Your task to perform on an android device: add a contact in the contacts app Image 0: 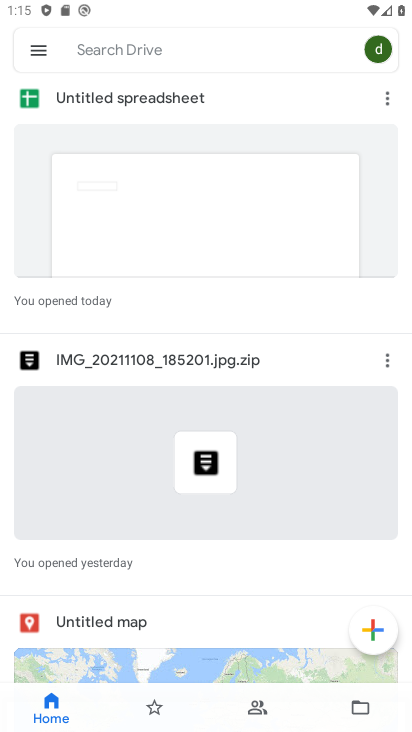
Step 0: press back button
Your task to perform on an android device: add a contact in the contacts app Image 1: 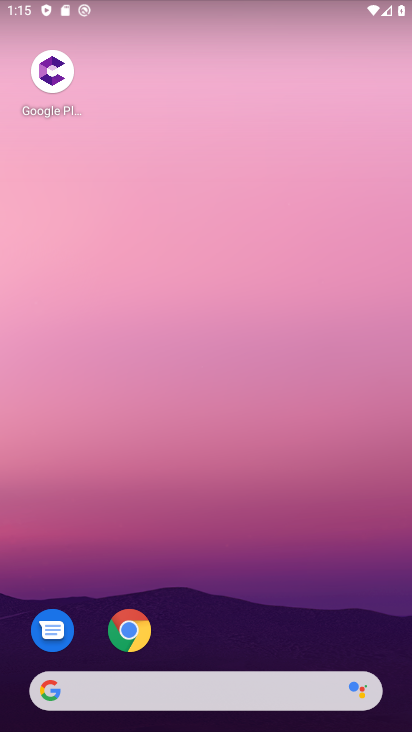
Step 1: drag from (295, 560) to (228, 0)
Your task to perform on an android device: add a contact in the contacts app Image 2: 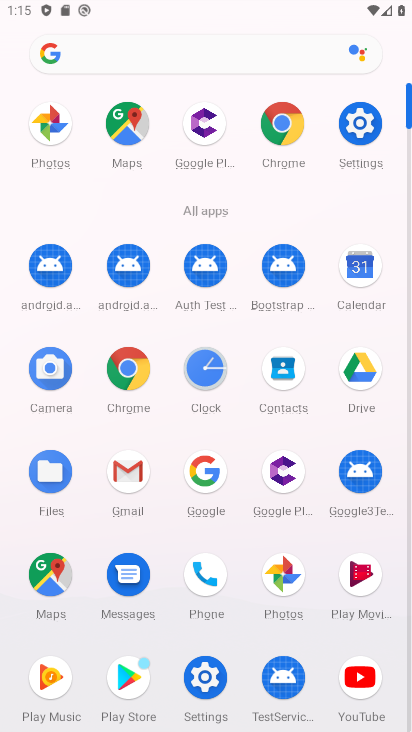
Step 2: drag from (2, 524) to (26, 164)
Your task to perform on an android device: add a contact in the contacts app Image 3: 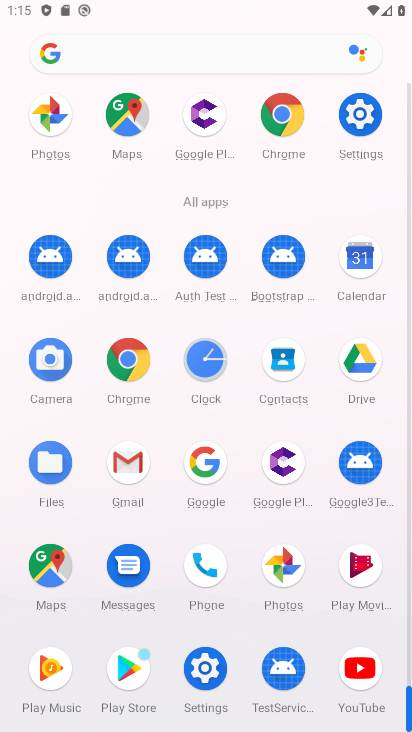
Step 3: click (277, 355)
Your task to perform on an android device: add a contact in the contacts app Image 4: 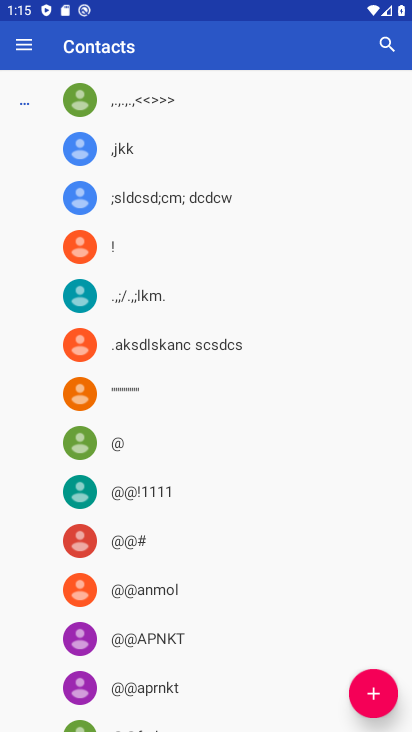
Step 4: click (371, 683)
Your task to perform on an android device: add a contact in the contacts app Image 5: 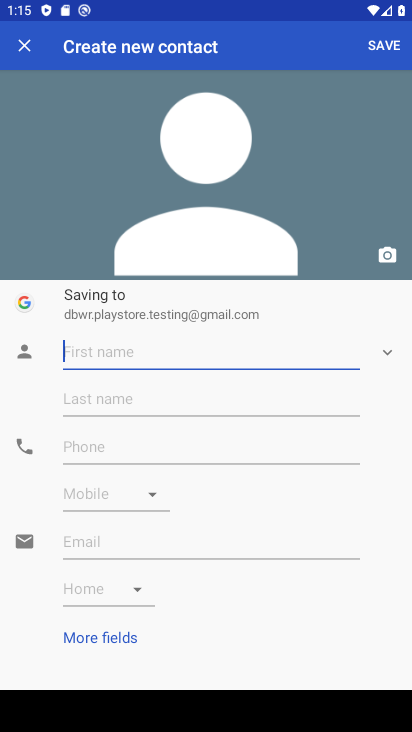
Step 5: type "Drtyui"
Your task to perform on an android device: add a contact in the contacts app Image 6: 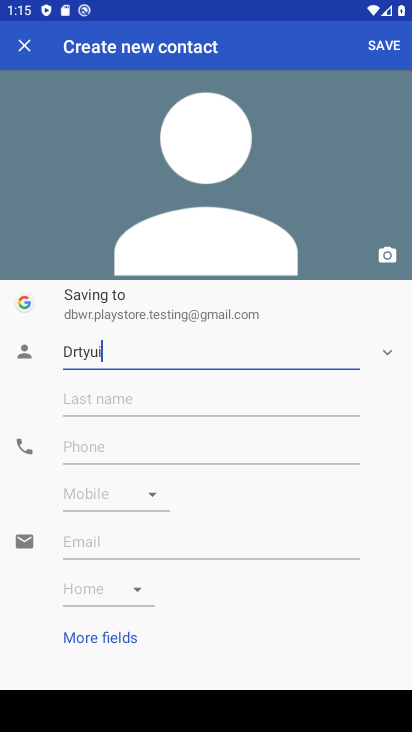
Step 6: type ""
Your task to perform on an android device: add a contact in the contacts app Image 7: 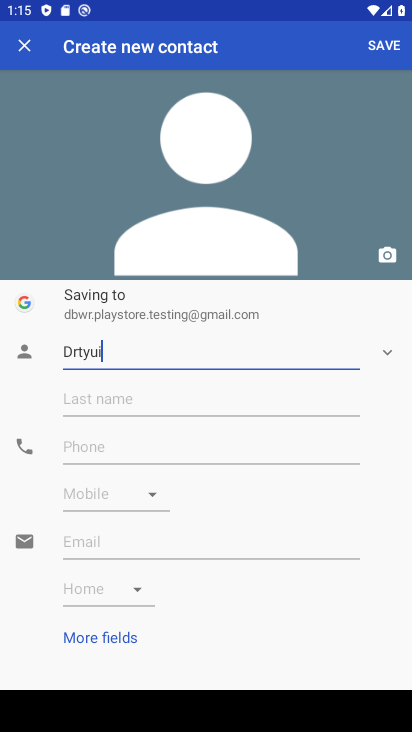
Step 7: click (105, 447)
Your task to perform on an android device: add a contact in the contacts app Image 8: 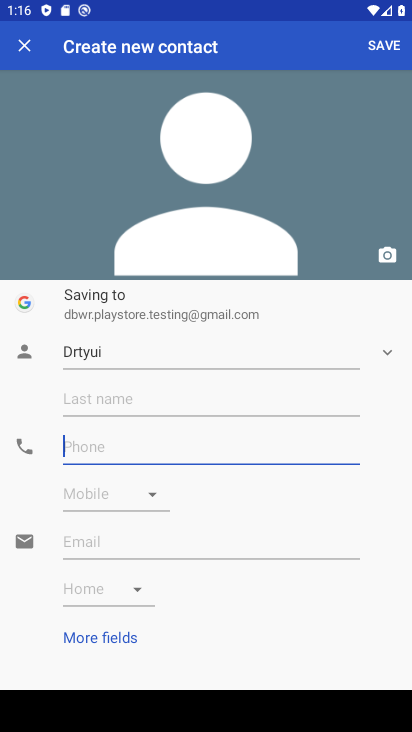
Step 8: type "45678987654"
Your task to perform on an android device: add a contact in the contacts app Image 9: 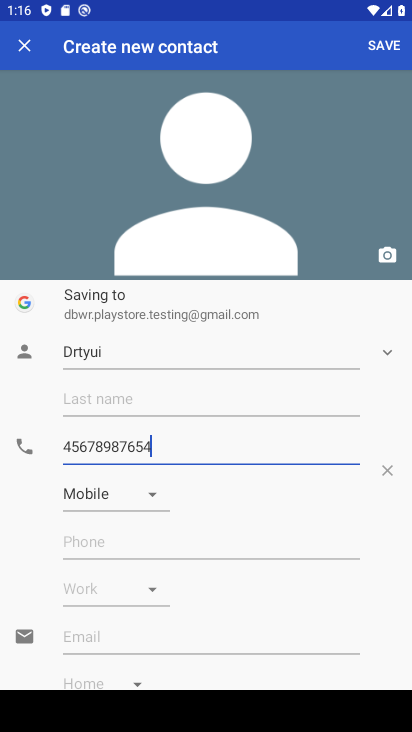
Step 9: type ""
Your task to perform on an android device: add a contact in the contacts app Image 10: 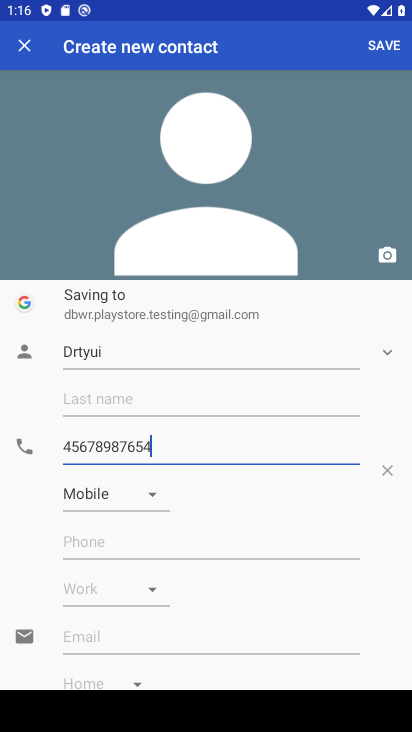
Step 10: click (381, 36)
Your task to perform on an android device: add a contact in the contacts app Image 11: 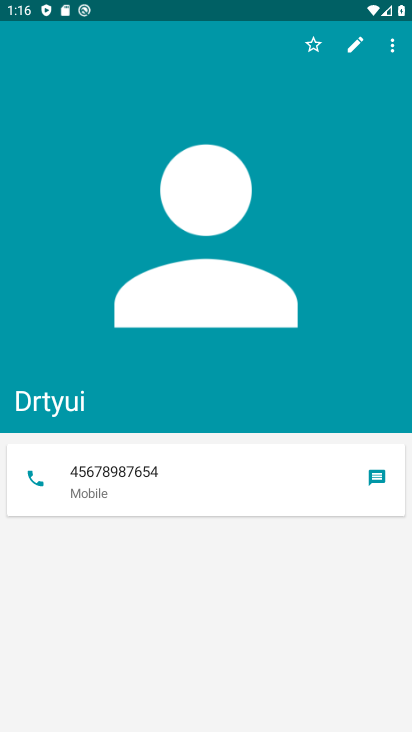
Step 11: task complete